Your task to perform on an android device: Search for "razer deathadder" on target, select the first entry, add it to the cart, then select checkout. Image 0: 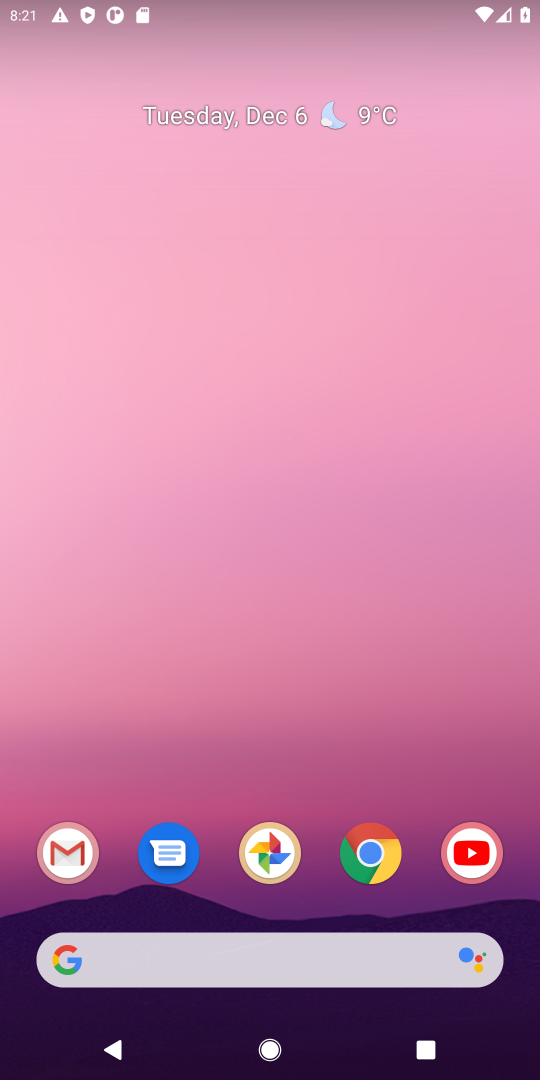
Step 0: click (375, 845)
Your task to perform on an android device: Search for "razer deathadder" on target, select the first entry, add it to the cart, then select checkout. Image 1: 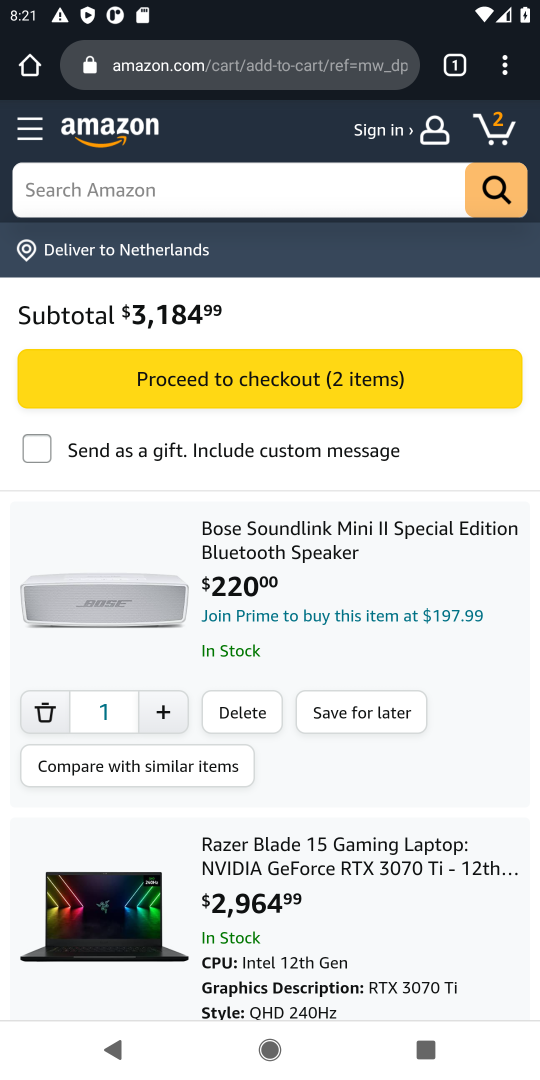
Step 1: click (267, 71)
Your task to perform on an android device: Search for "razer deathadder" on target, select the first entry, add it to the cart, then select checkout. Image 2: 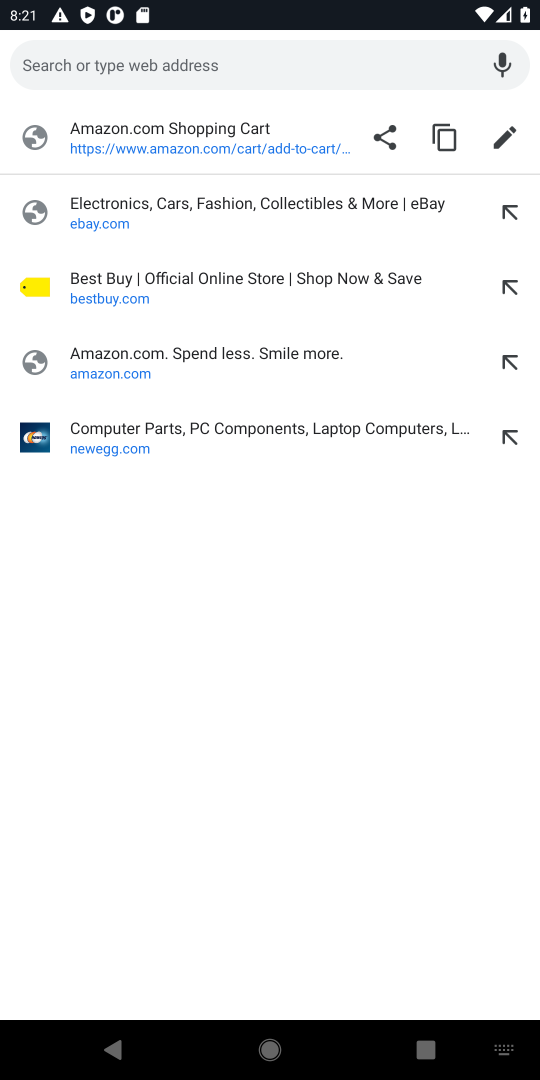
Step 2: type "target"
Your task to perform on an android device: Search for "razer deathadder" on target, select the first entry, add it to the cart, then select checkout. Image 3: 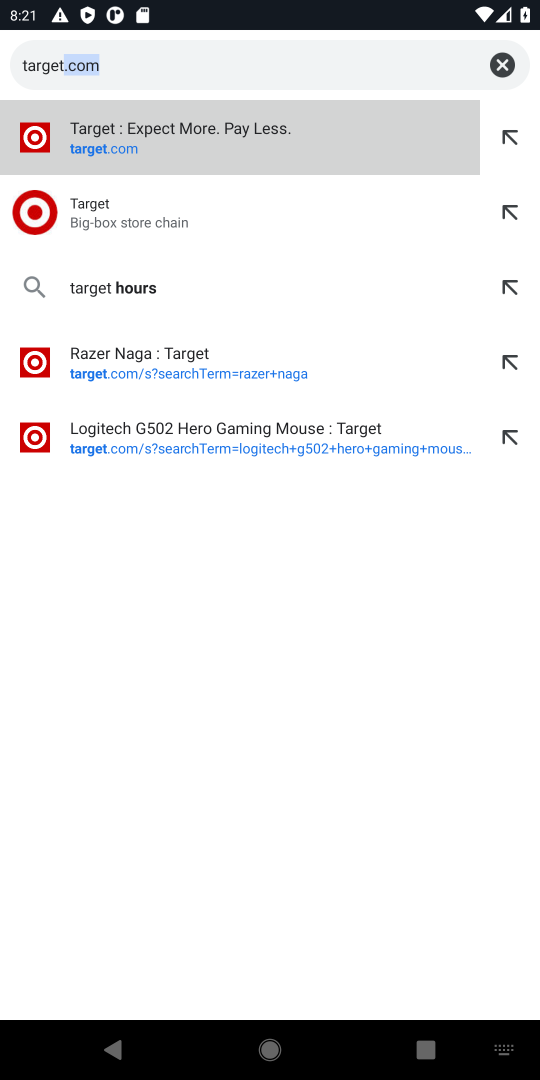
Step 3: click (280, 134)
Your task to perform on an android device: Search for "razer deathadder" on target, select the first entry, add it to the cart, then select checkout. Image 4: 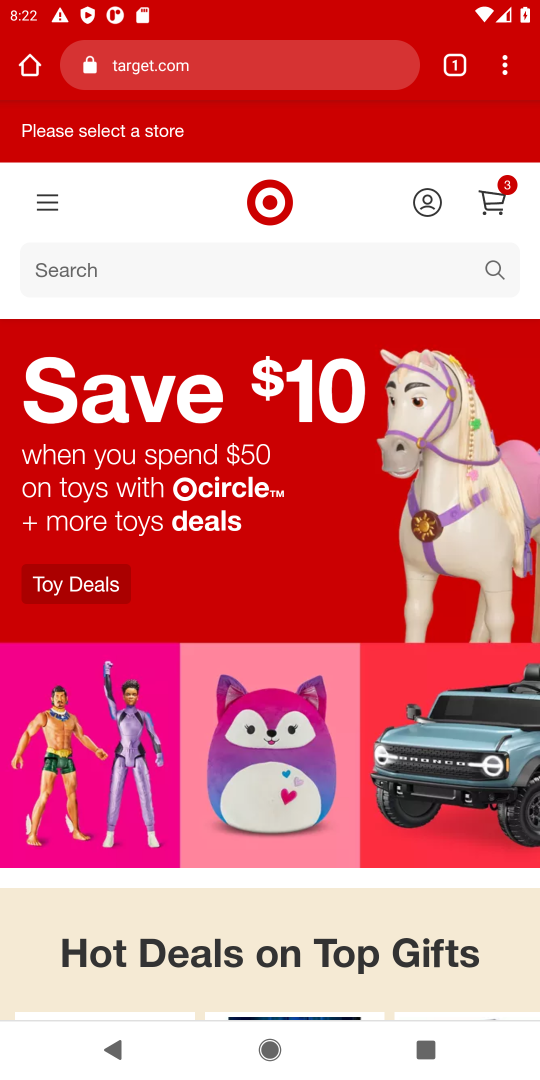
Step 4: click (488, 266)
Your task to perform on an android device: Search for "razer deathadder" on target, select the first entry, add it to the cart, then select checkout. Image 5: 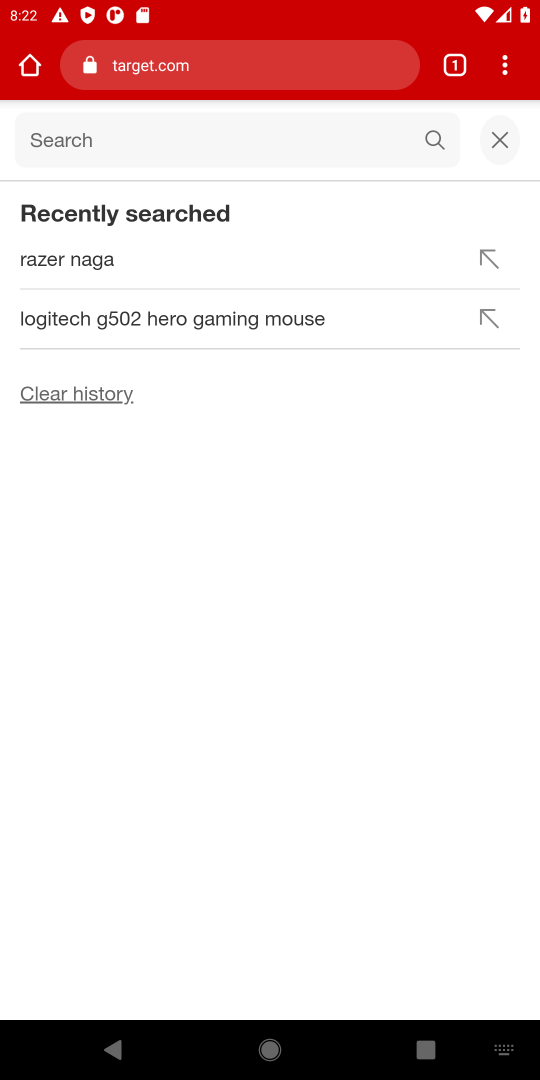
Step 5: type "razer deathadder"
Your task to perform on an android device: Search for "razer deathadder" on target, select the first entry, add it to the cart, then select checkout. Image 6: 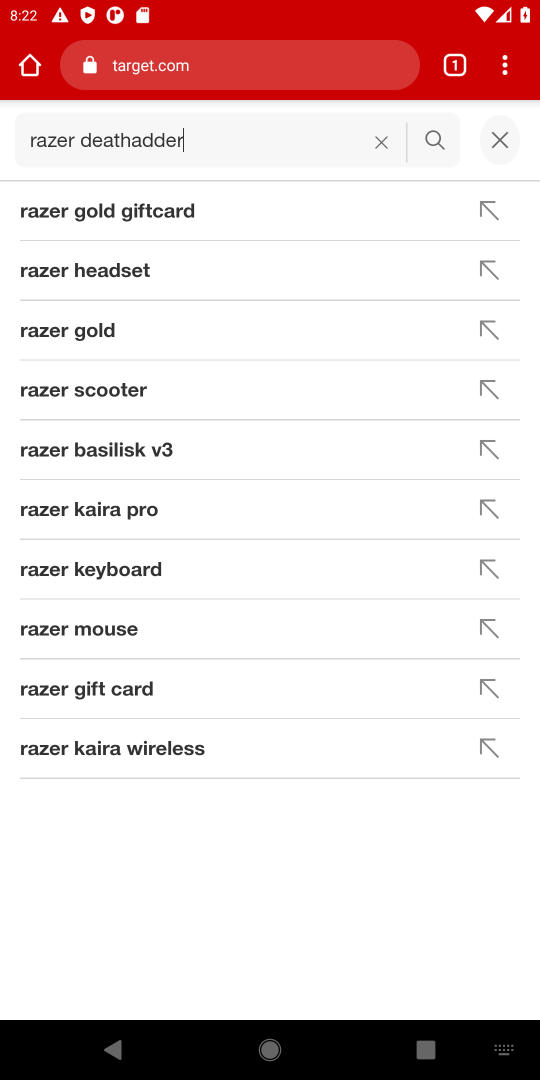
Step 6: click (103, 212)
Your task to perform on an android device: Search for "razer deathadder" on target, select the first entry, add it to the cart, then select checkout. Image 7: 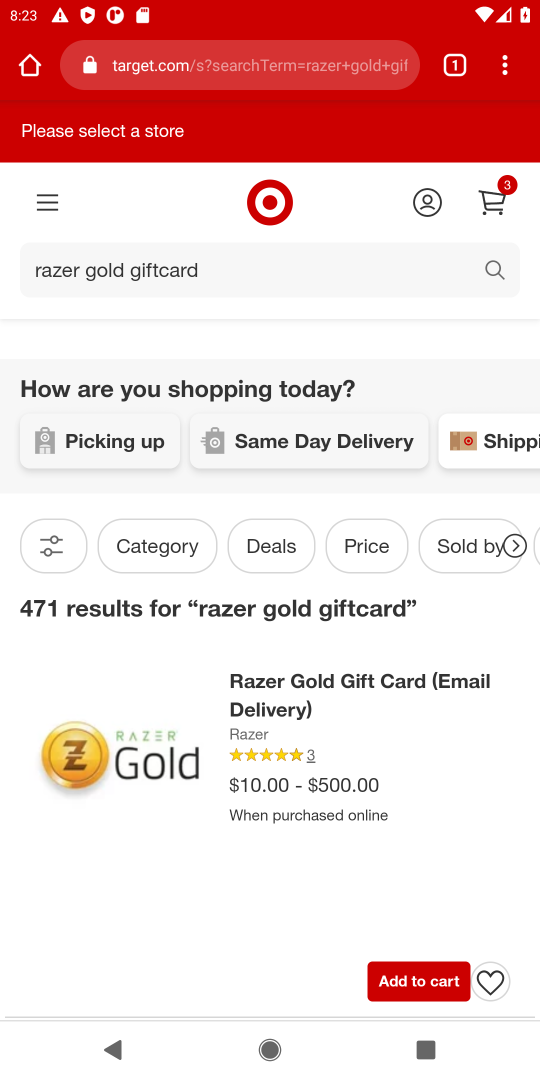
Step 7: click (434, 993)
Your task to perform on an android device: Search for "razer deathadder" on target, select the first entry, add it to the cart, then select checkout. Image 8: 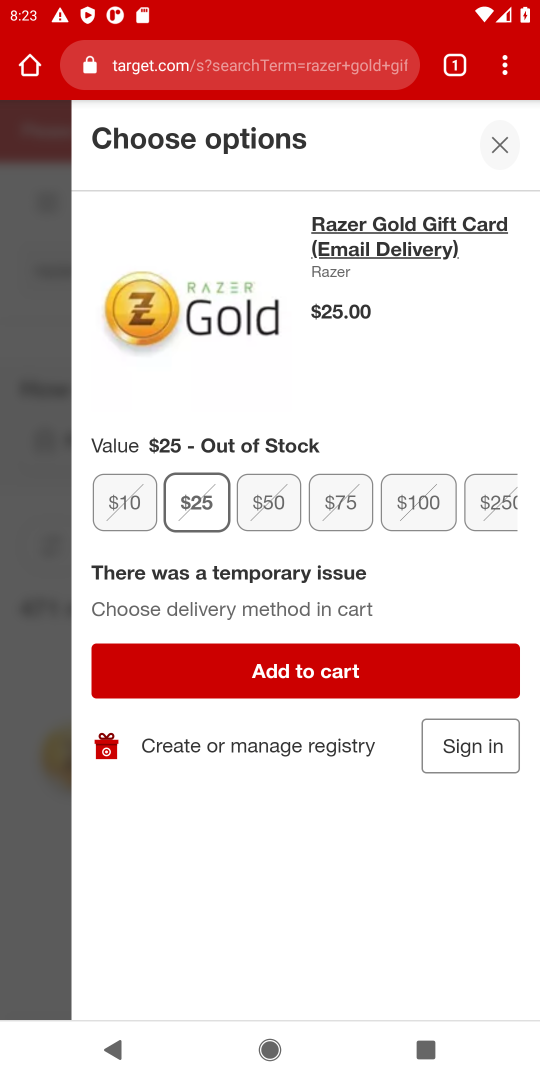
Step 8: task complete